Your task to perform on an android device: When is my next meeting? Image 0: 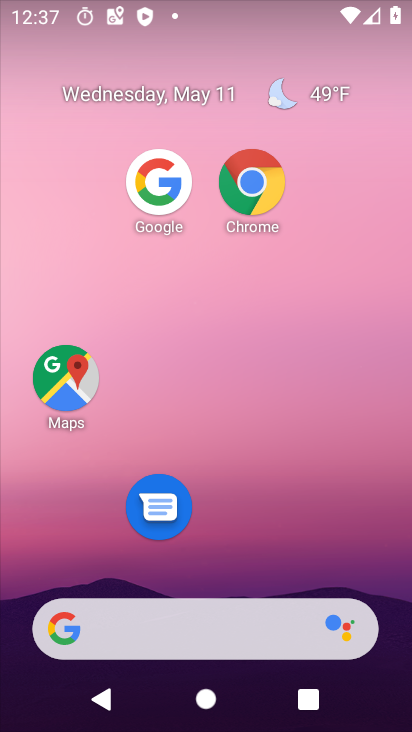
Step 0: drag from (236, 532) to (234, 65)
Your task to perform on an android device: When is my next meeting? Image 1: 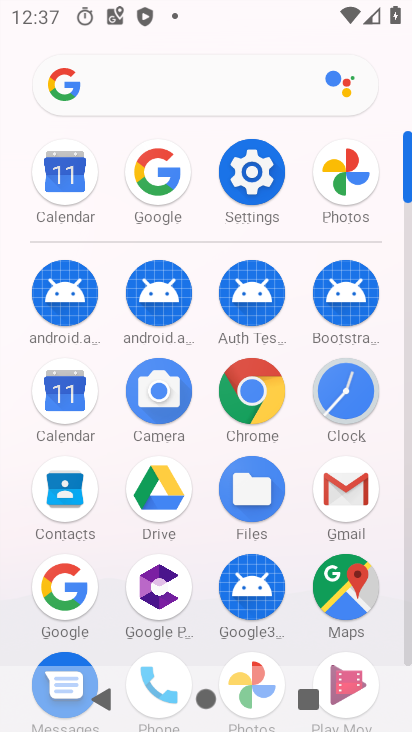
Step 1: click (57, 394)
Your task to perform on an android device: When is my next meeting? Image 2: 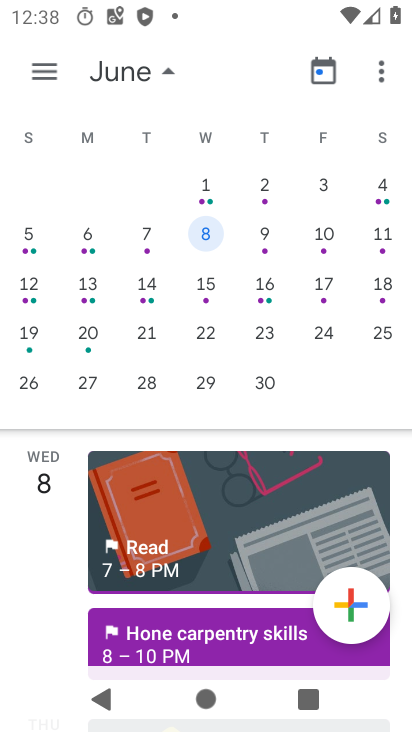
Step 2: click (270, 285)
Your task to perform on an android device: When is my next meeting? Image 3: 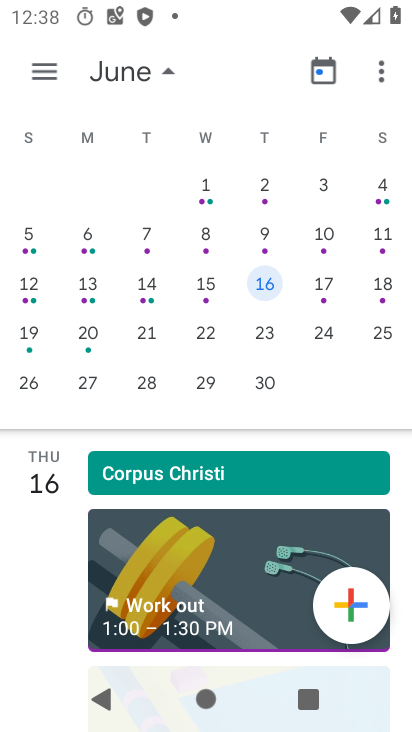
Step 3: task complete